Your task to perform on an android device: Open display settings Image 0: 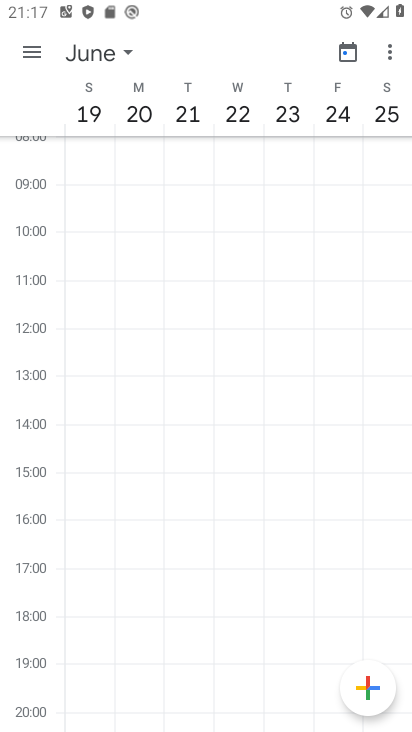
Step 0: press home button
Your task to perform on an android device: Open display settings Image 1: 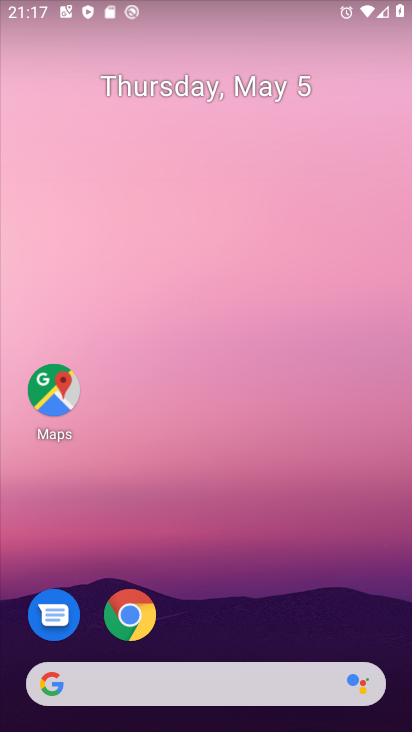
Step 1: drag from (229, 596) to (284, 270)
Your task to perform on an android device: Open display settings Image 2: 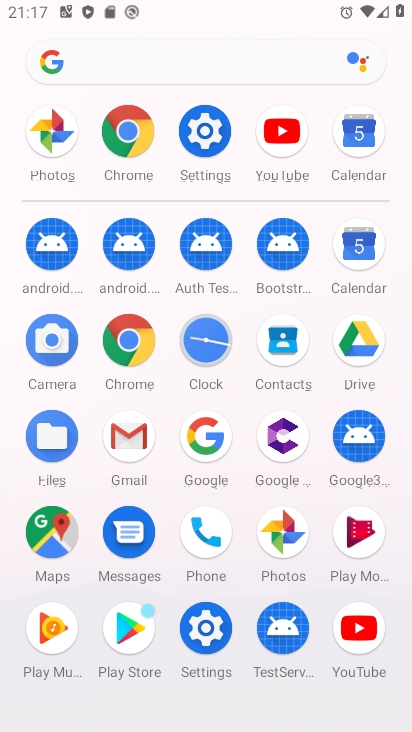
Step 2: click (196, 627)
Your task to perform on an android device: Open display settings Image 3: 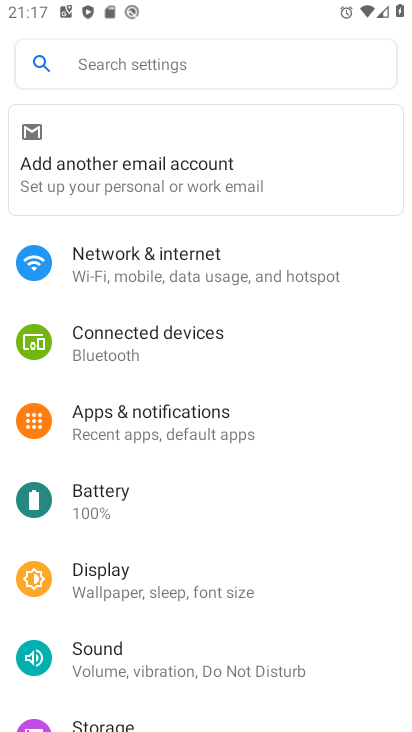
Step 3: click (194, 587)
Your task to perform on an android device: Open display settings Image 4: 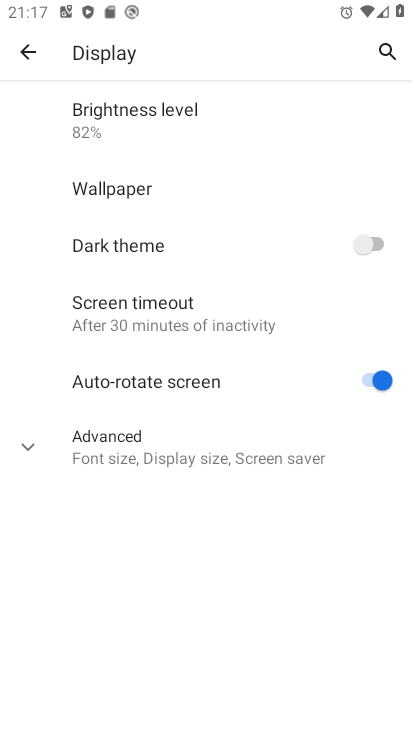
Step 4: task complete